Your task to perform on an android device: turn off priority inbox in the gmail app Image 0: 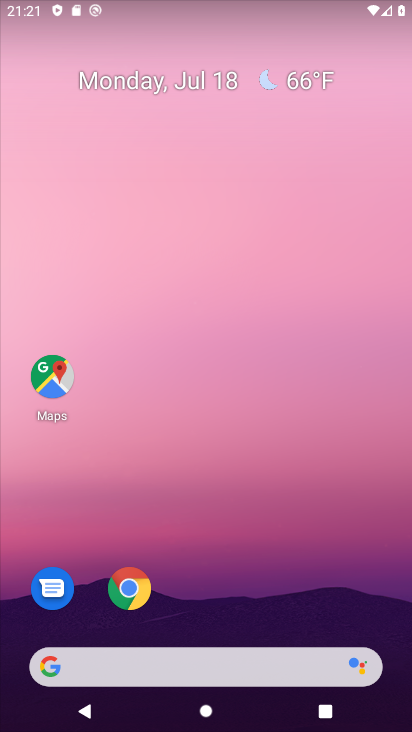
Step 0: press home button
Your task to perform on an android device: turn off priority inbox in the gmail app Image 1: 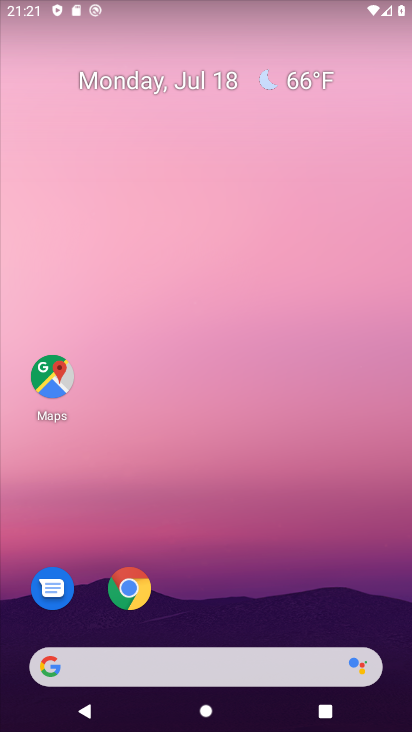
Step 1: drag from (158, 654) to (335, 110)
Your task to perform on an android device: turn off priority inbox in the gmail app Image 2: 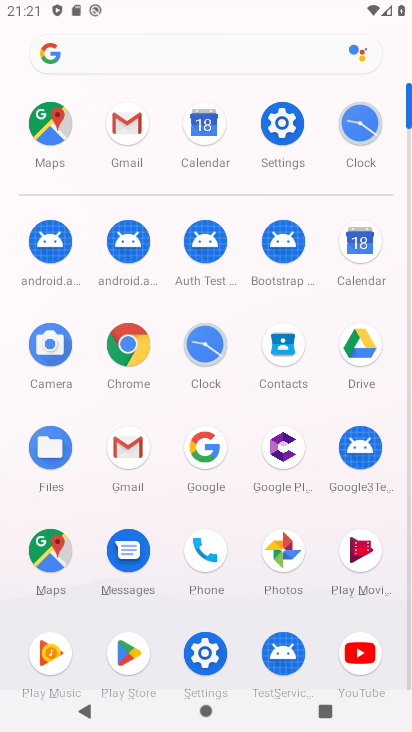
Step 2: click (124, 127)
Your task to perform on an android device: turn off priority inbox in the gmail app Image 3: 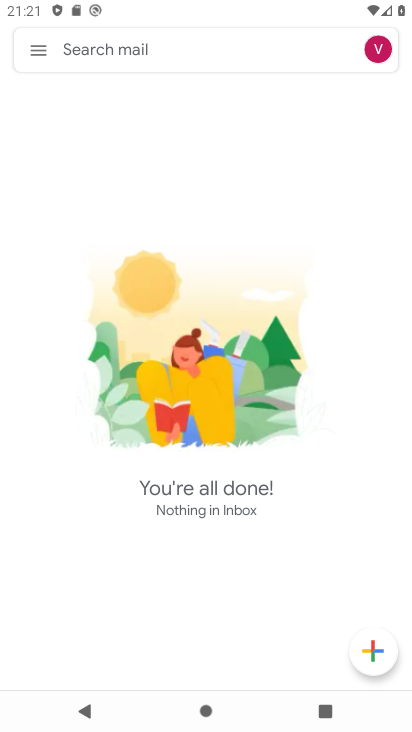
Step 3: click (36, 51)
Your task to perform on an android device: turn off priority inbox in the gmail app Image 4: 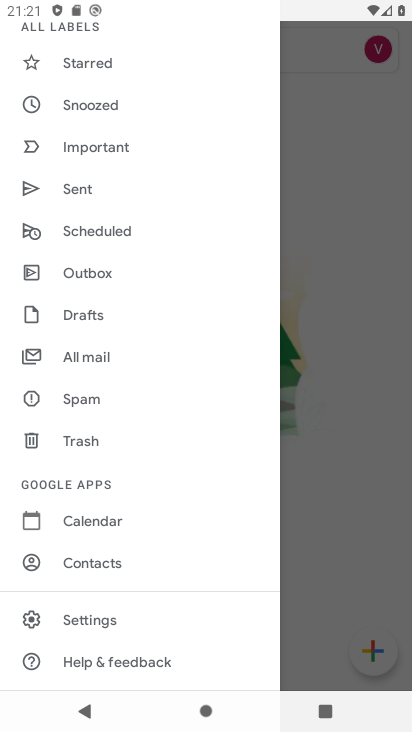
Step 4: click (110, 625)
Your task to perform on an android device: turn off priority inbox in the gmail app Image 5: 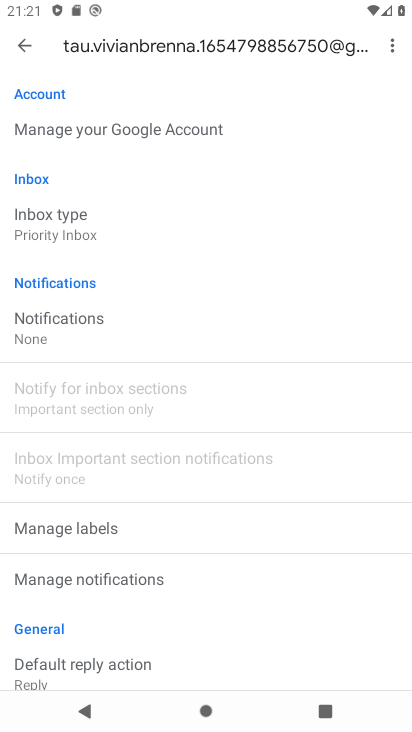
Step 5: drag from (143, 526) to (268, 109)
Your task to perform on an android device: turn off priority inbox in the gmail app Image 6: 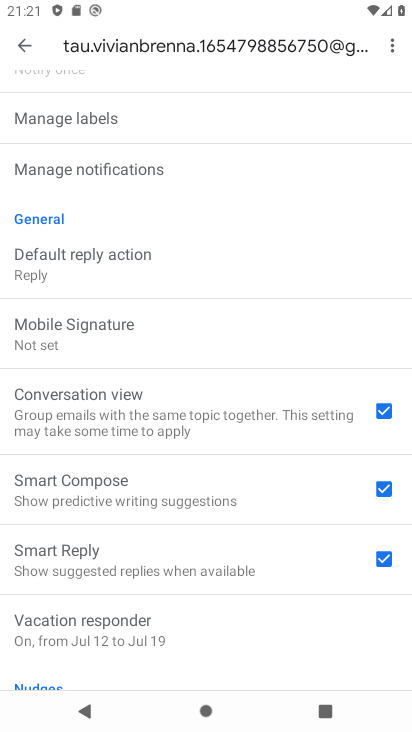
Step 6: drag from (260, 191) to (239, 577)
Your task to perform on an android device: turn off priority inbox in the gmail app Image 7: 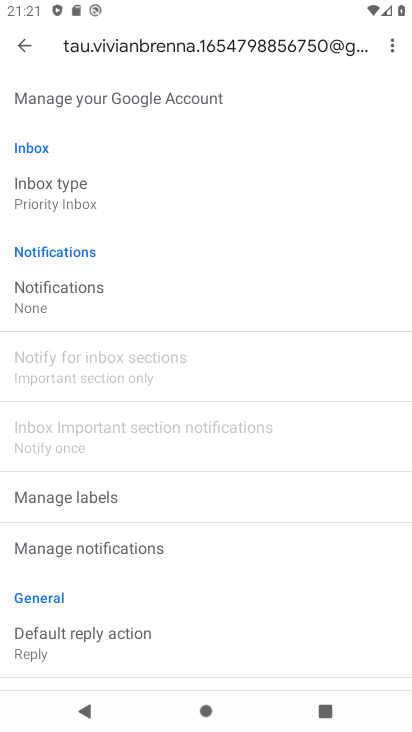
Step 7: click (64, 200)
Your task to perform on an android device: turn off priority inbox in the gmail app Image 8: 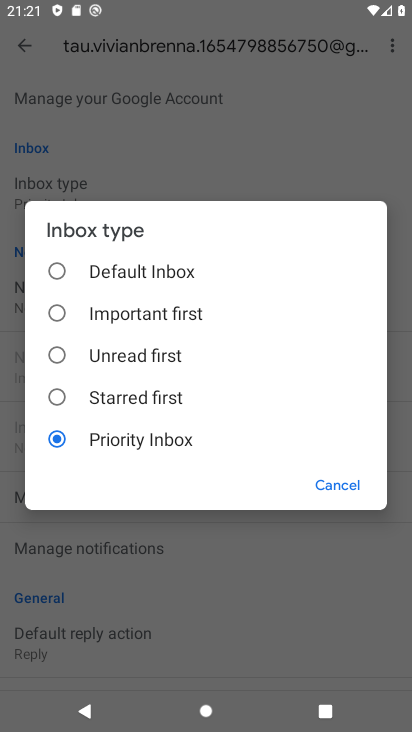
Step 8: click (57, 268)
Your task to perform on an android device: turn off priority inbox in the gmail app Image 9: 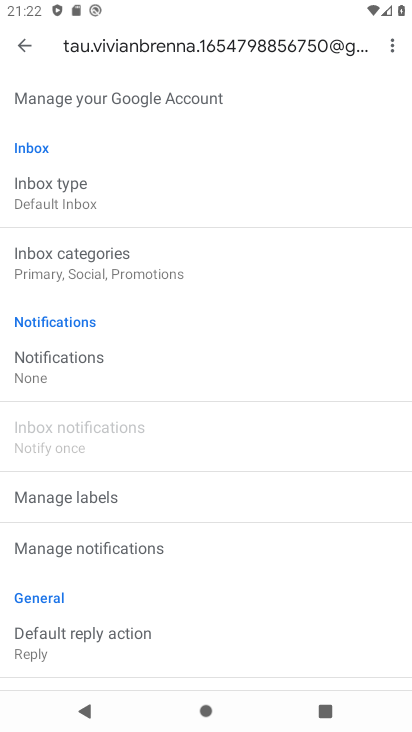
Step 9: task complete